Your task to perform on an android device: Go to Android settings Image 0: 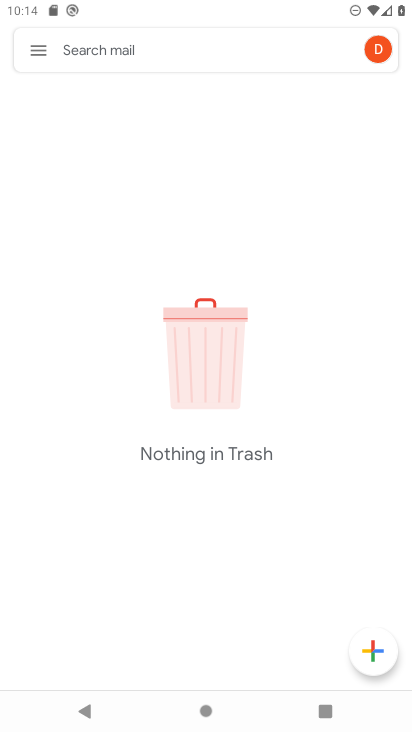
Step 0: press home button
Your task to perform on an android device: Go to Android settings Image 1: 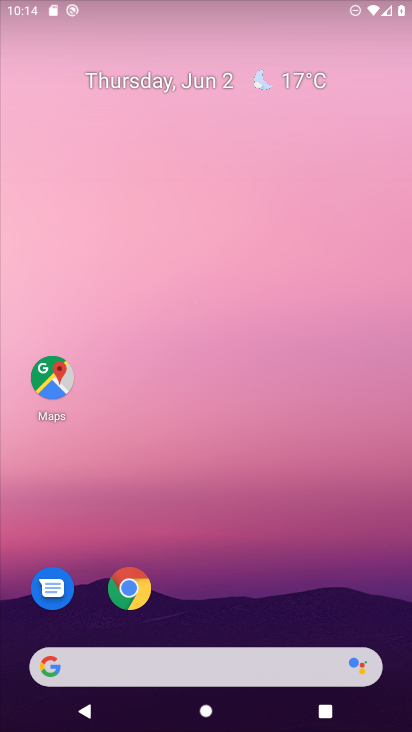
Step 1: drag from (198, 670) to (324, 35)
Your task to perform on an android device: Go to Android settings Image 2: 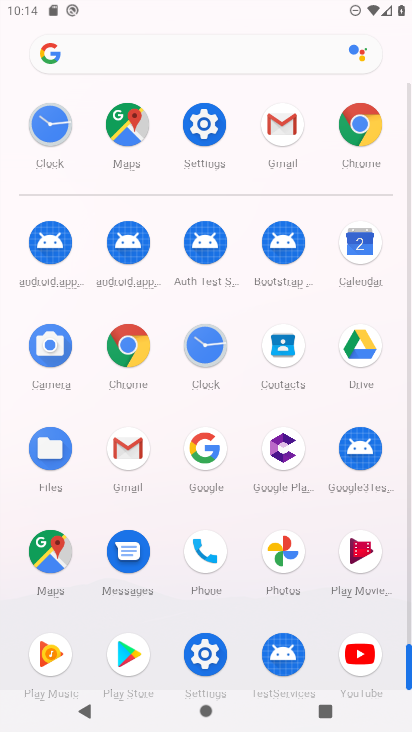
Step 2: click (210, 137)
Your task to perform on an android device: Go to Android settings Image 3: 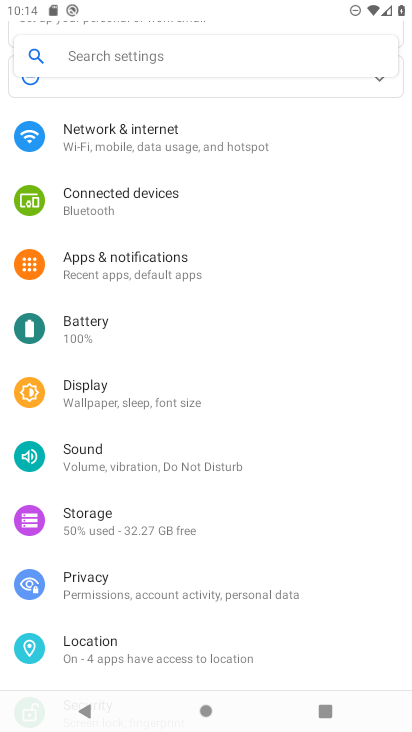
Step 3: drag from (226, 307) to (297, 108)
Your task to perform on an android device: Go to Android settings Image 4: 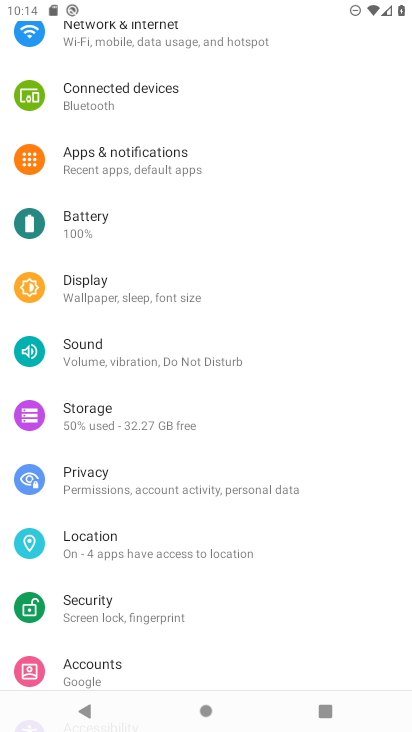
Step 4: drag from (200, 590) to (228, 87)
Your task to perform on an android device: Go to Android settings Image 5: 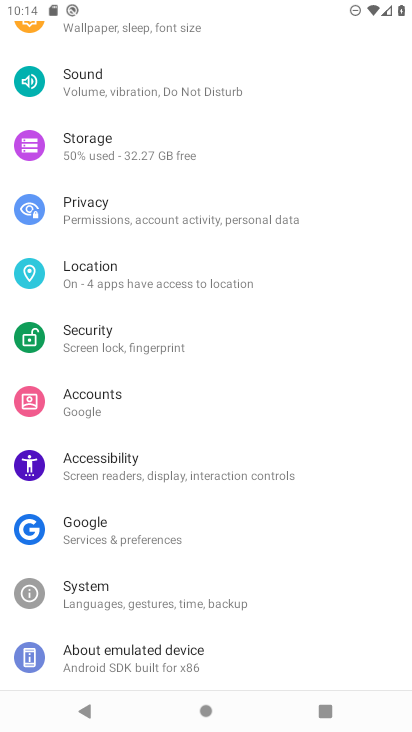
Step 5: click (130, 656)
Your task to perform on an android device: Go to Android settings Image 6: 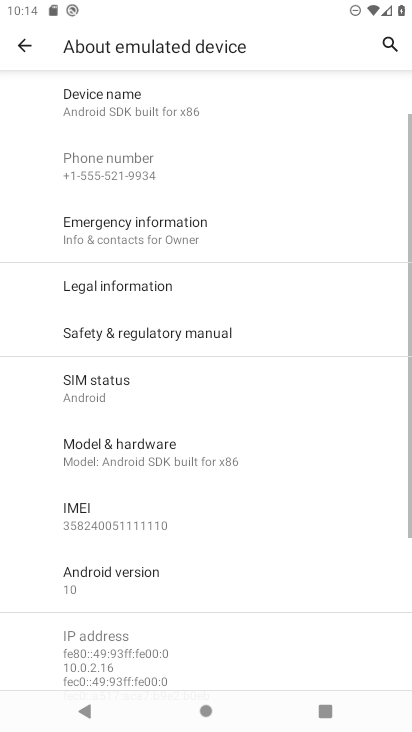
Step 6: drag from (163, 599) to (324, 119)
Your task to perform on an android device: Go to Android settings Image 7: 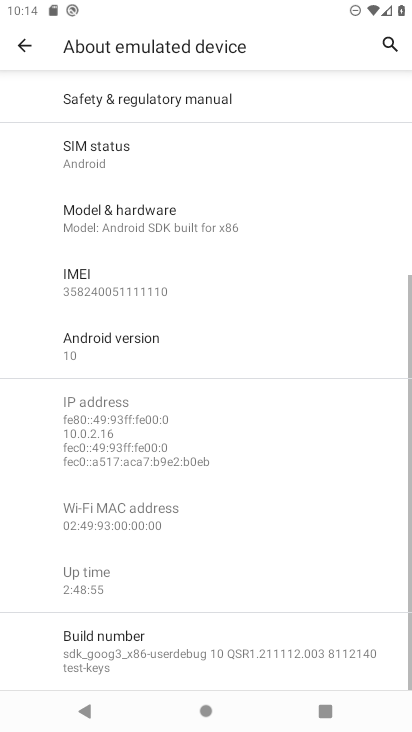
Step 7: click (168, 347)
Your task to perform on an android device: Go to Android settings Image 8: 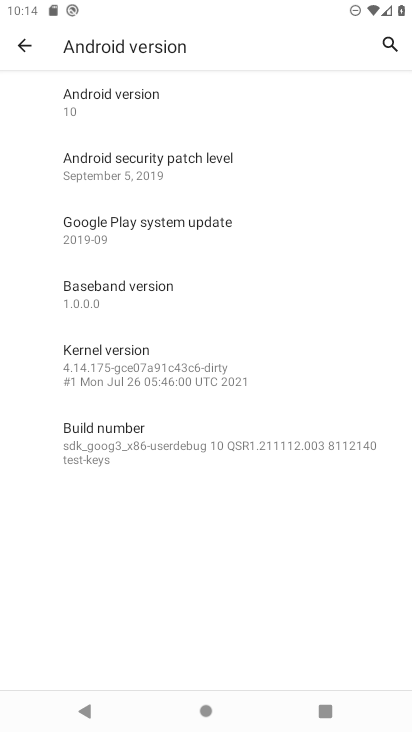
Step 8: click (119, 109)
Your task to perform on an android device: Go to Android settings Image 9: 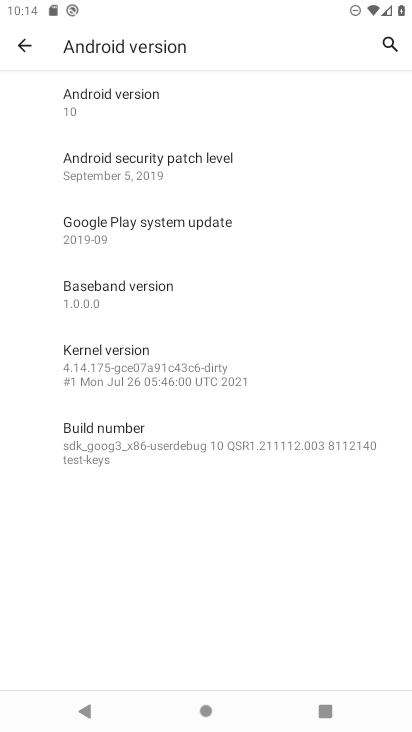
Step 9: task complete